Your task to perform on an android device: snooze an email in the gmail app Image 0: 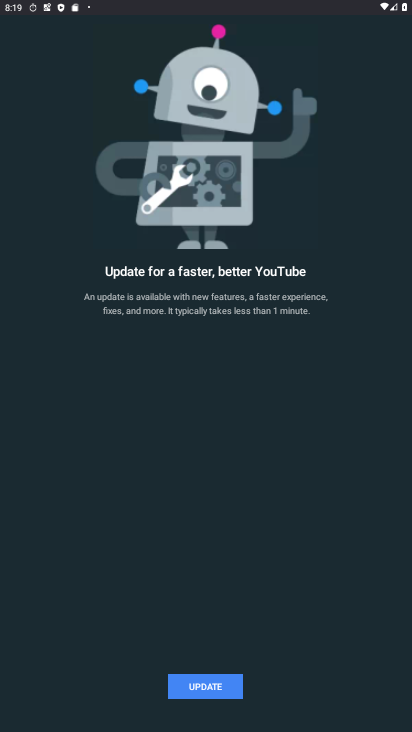
Step 0: press home button
Your task to perform on an android device: snooze an email in the gmail app Image 1: 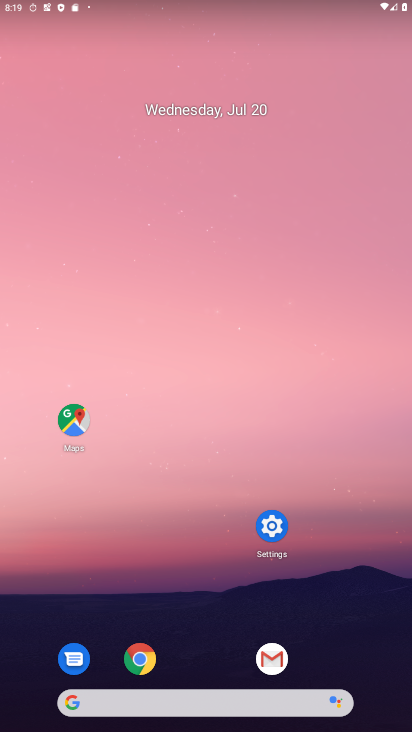
Step 1: click (265, 650)
Your task to perform on an android device: snooze an email in the gmail app Image 2: 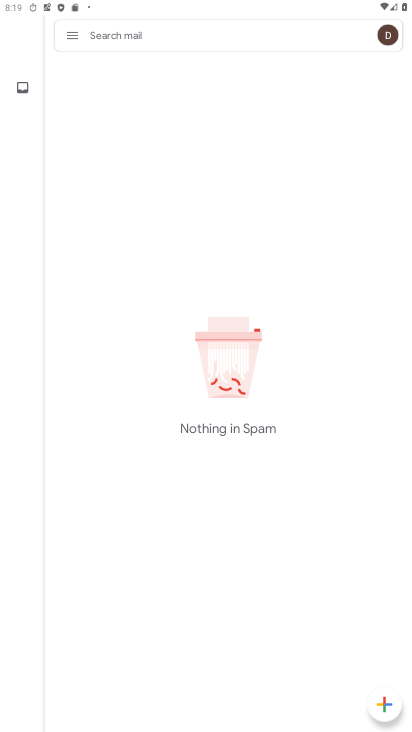
Step 2: click (65, 40)
Your task to perform on an android device: snooze an email in the gmail app Image 3: 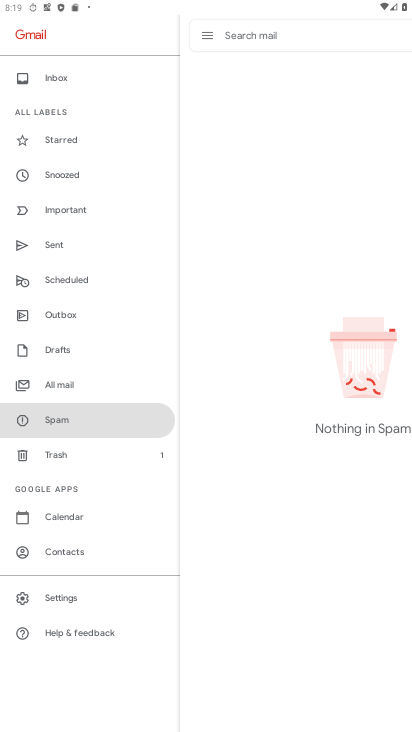
Step 3: click (76, 178)
Your task to perform on an android device: snooze an email in the gmail app Image 4: 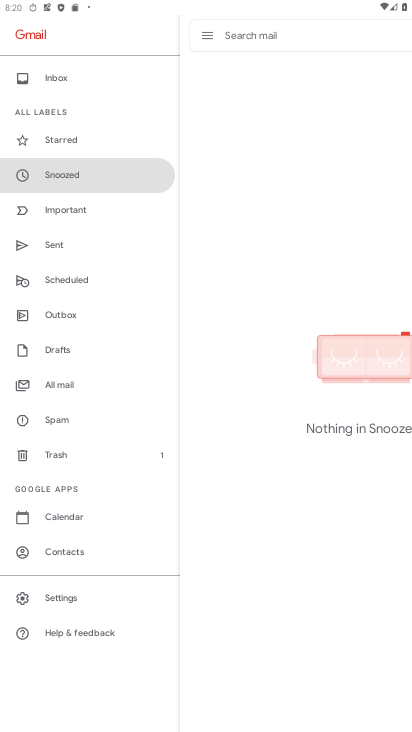
Step 4: task complete